Your task to perform on an android device: Go to calendar. Show me events next week Image 0: 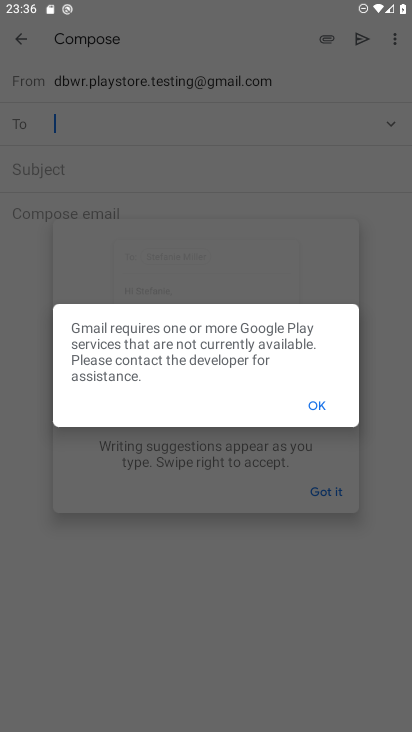
Step 0: press home button
Your task to perform on an android device: Go to calendar. Show me events next week Image 1: 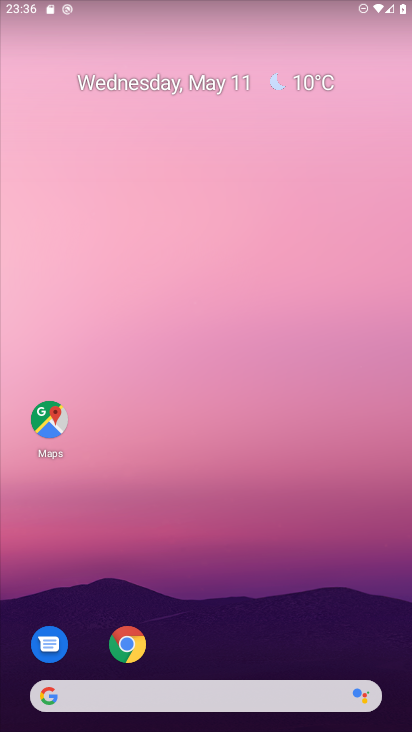
Step 1: drag from (309, 576) to (304, 23)
Your task to perform on an android device: Go to calendar. Show me events next week Image 2: 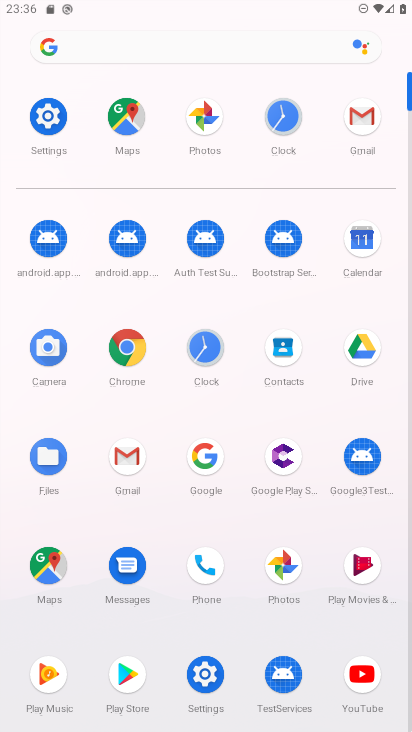
Step 2: click (342, 235)
Your task to perform on an android device: Go to calendar. Show me events next week Image 3: 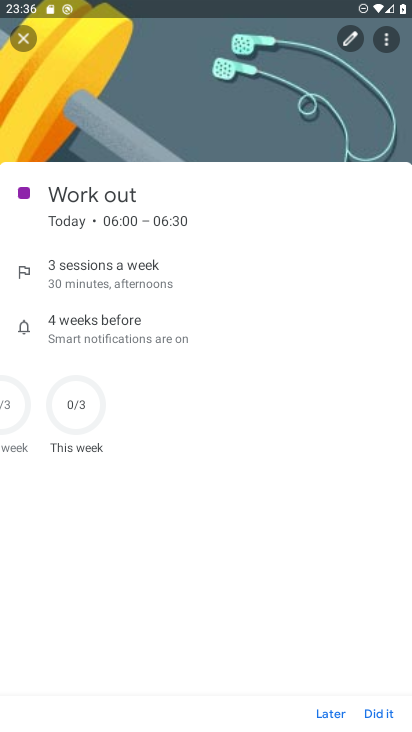
Step 3: click (19, 38)
Your task to perform on an android device: Go to calendar. Show me events next week Image 4: 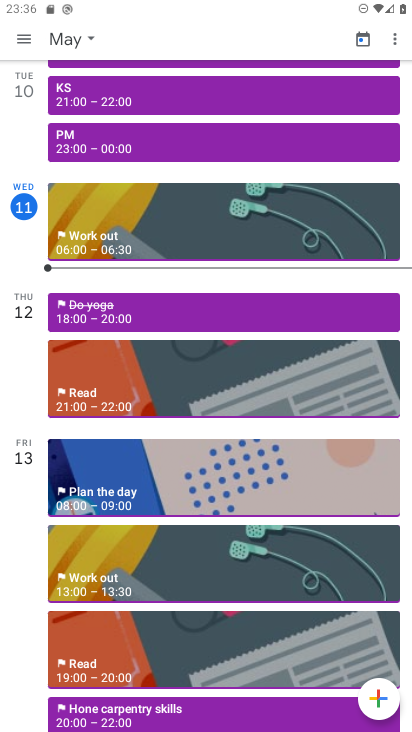
Step 4: click (24, 41)
Your task to perform on an android device: Go to calendar. Show me events next week Image 5: 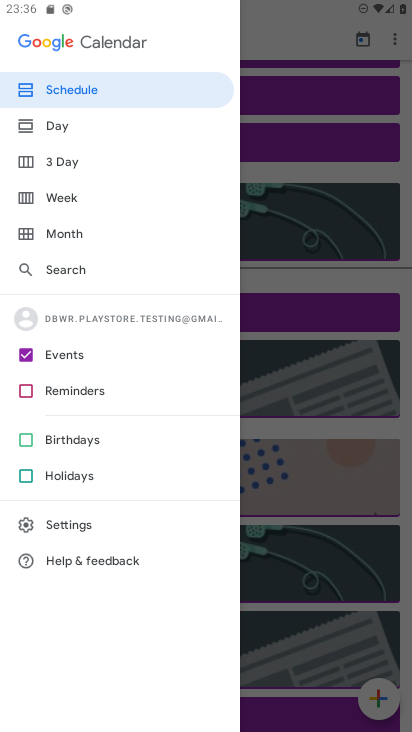
Step 5: click (57, 203)
Your task to perform on an android device: Go to calendar. Show me events next week Image 6: 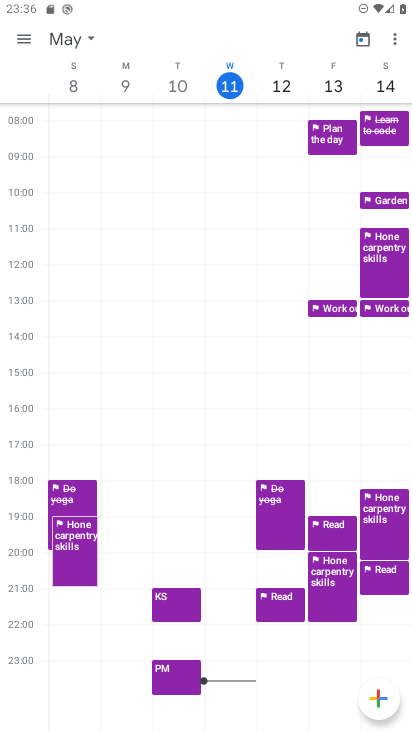
Step 6: task complete